Your task to perform on an android device: What's on my calendar today? Image 0: 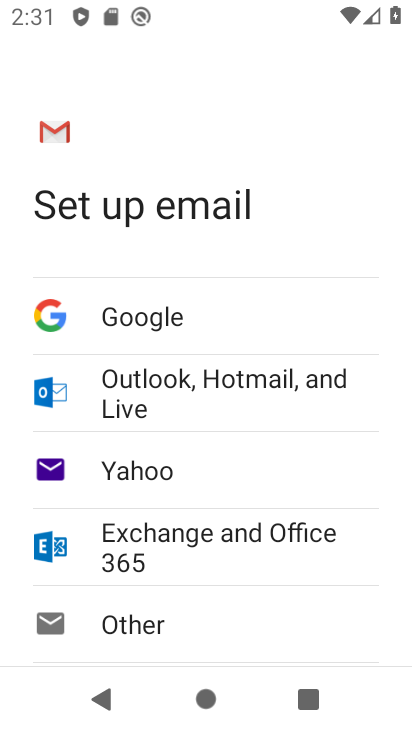
Step 0: press home button
Your task to perform on an android device: What's on my calendar today? Image 1: 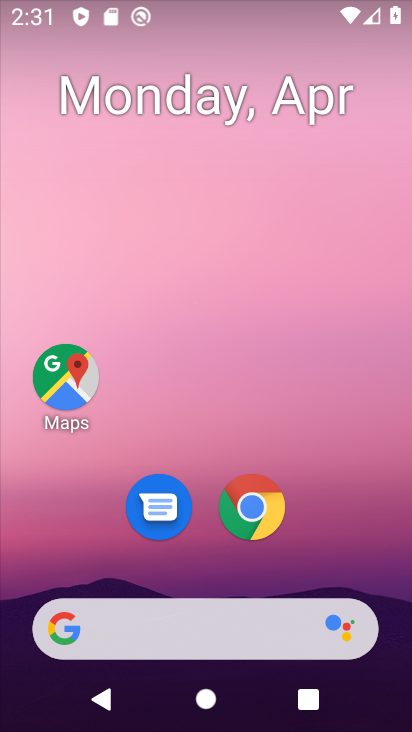
Step 1: drag from (401, 604) to (327, 154)
Your task to perform on an android device: What's on my calendar today? Image 2: 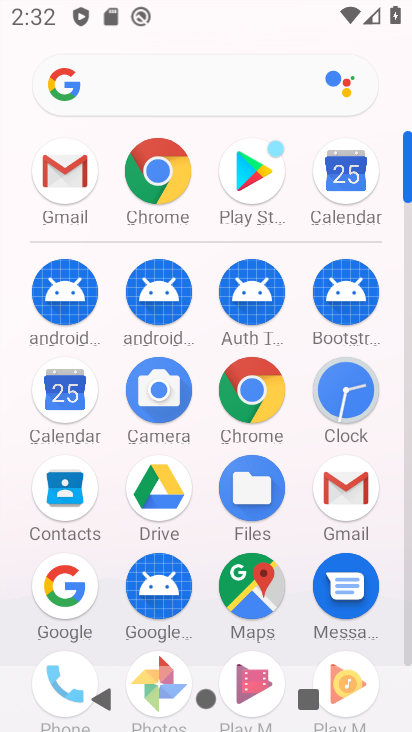
Step 2: click (410, 648)
Your task to perform on an android device: What's on my calendar today? Image 3: 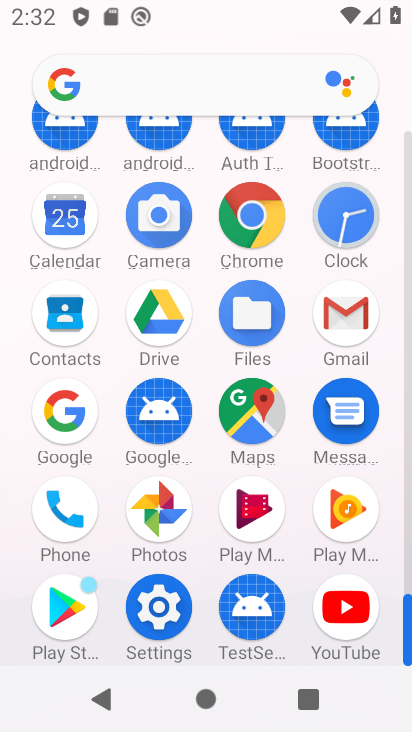
Step 3: click (62, 207)
Your task to perform on an android device: What's on my calendar today? Image 4: 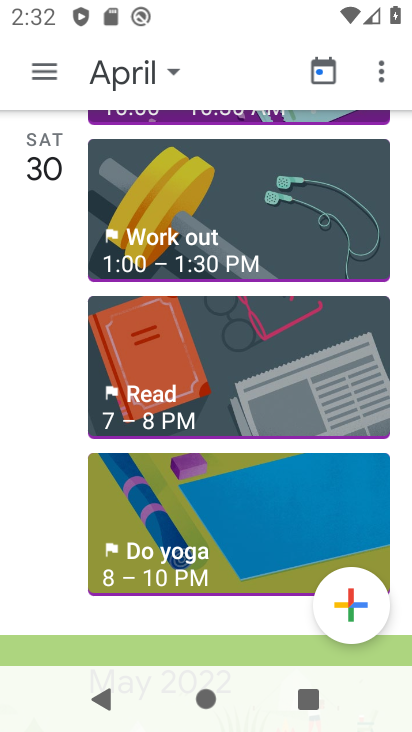
Step 4: drag from (204, 286) to (228, 500)
Your task to perform on an android device: What's on my calendar today? Image 5: 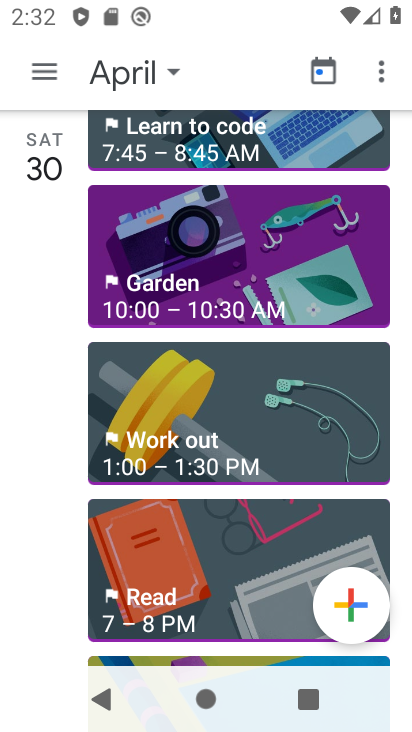
Step 5: click (172, 69)
Your task to perform on an android device: What's on my calendar today? Image 6: 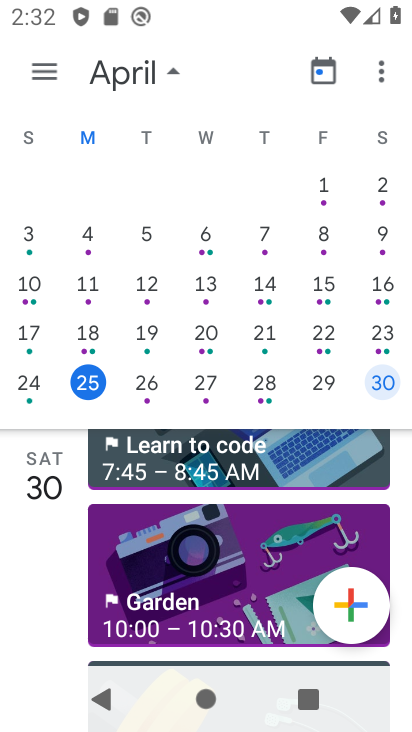
Step 6: click (144, 382)
Your task to perform on an android device: What's on my calendar today? Image 7: 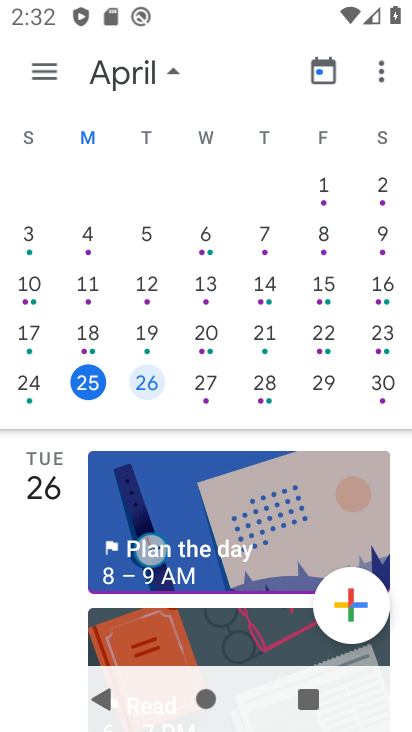
Step 7: drag from (187, 516) to (190, 221)
Your task to perform on an android device: What's on my calendar today? Image 8: 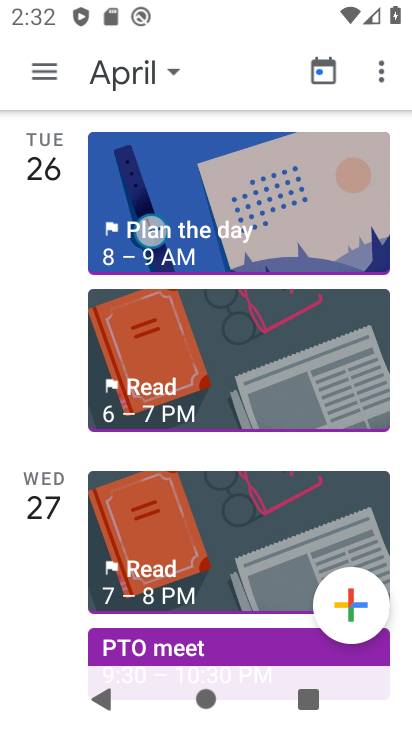
Step 8: click (48, 72)
Your task to perform on an android device: What's on my calendar today? Image 9: 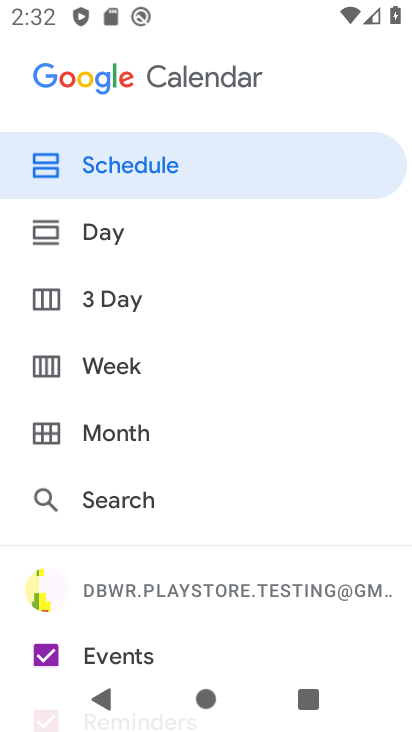
Step 9: click (95, 237)
Your task to perform on an android device: What's on my calendar today? Image 10: 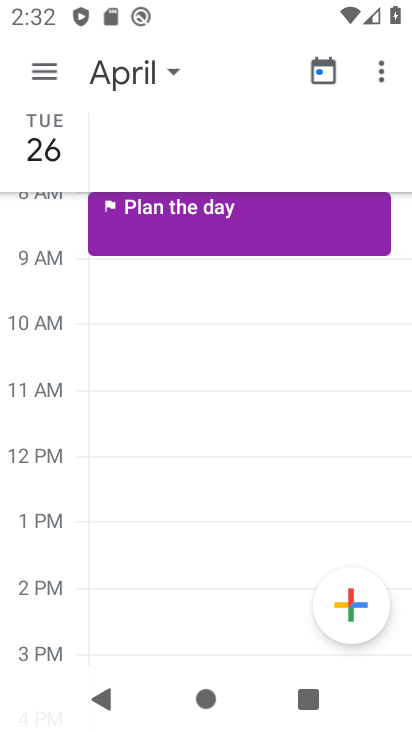
Step 10: task complete